Your task to perform on an android device: show emergency info Image 0: 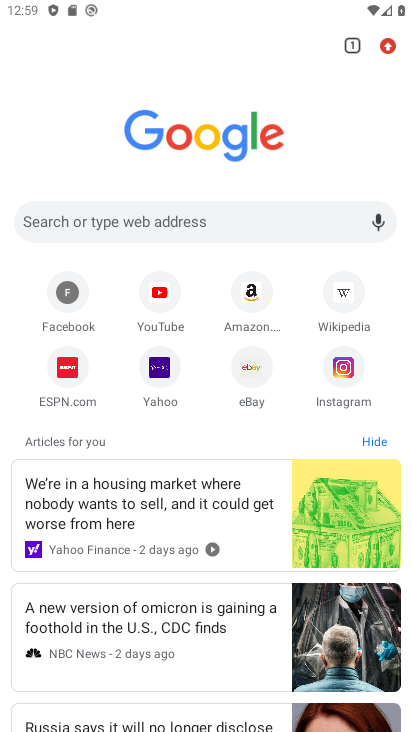
Step 0: press home button
Your task to perform on an android device: show emergency info Image 1: 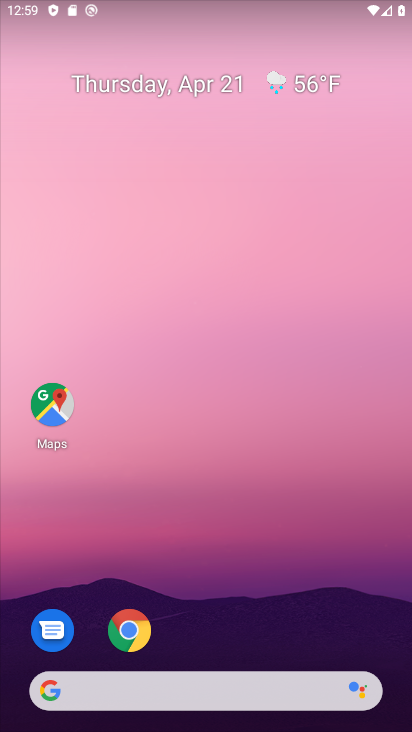
Step 1: drag from (229, 672) to (269, 277)
Your task to perform on an android device: show emergency info Image 2: 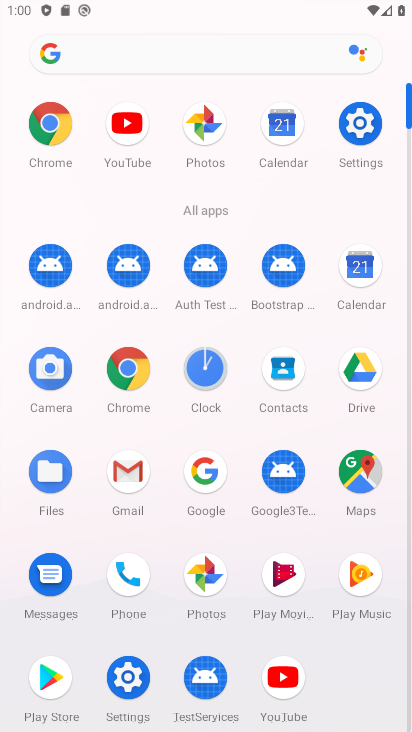
Step 2: click (129, 668)
Your task to perform on an android device: show emergency info Image 3: 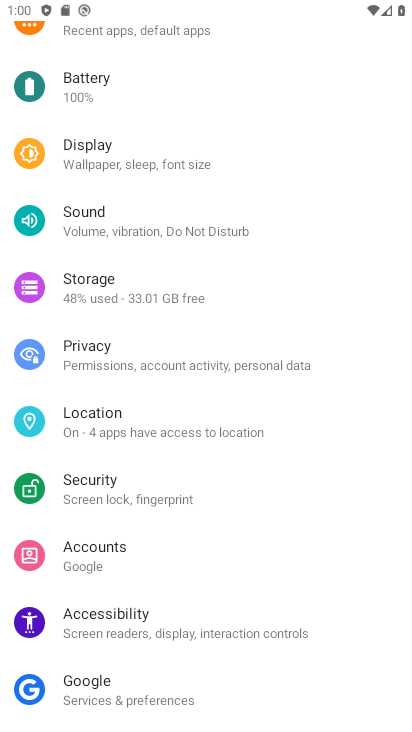
Step 3: drag from (126, 675) to (102, 164)
Your task to perform on an android device: show emergency info Image 4: 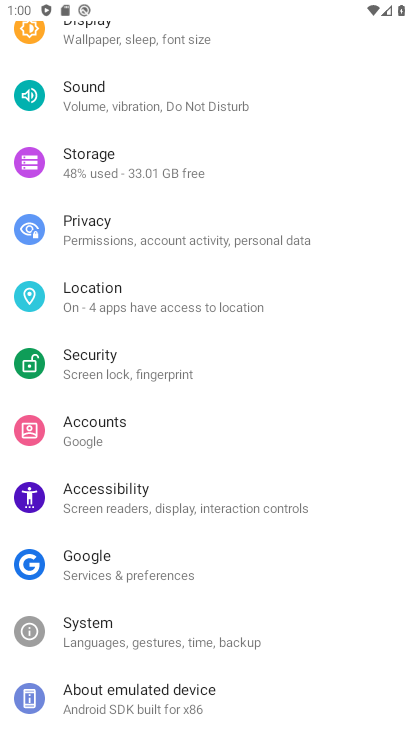
Step 4: click (120, 698)
Your task to perform on an android device: show emergency info Image 5: 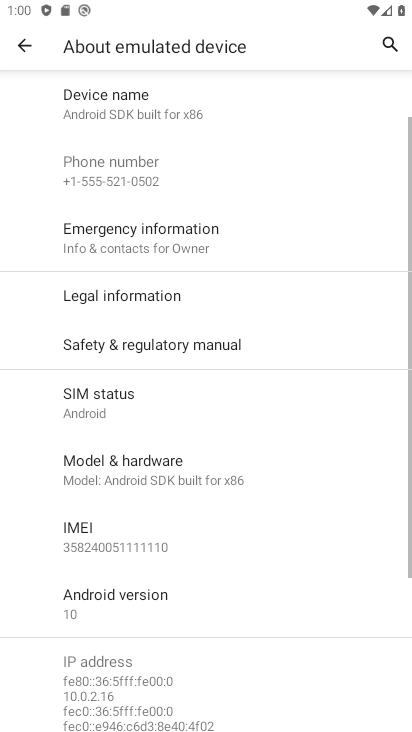
Step 5: click (137, 239)
Your task to perform on an android device: show emergency info Image 6: 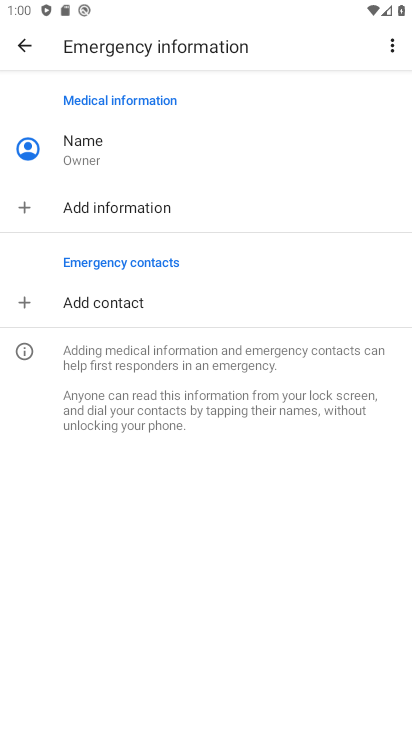
Step 6: task complete